Your task to perform on an android device: What's the weather going to be tomorrow? Image 0: 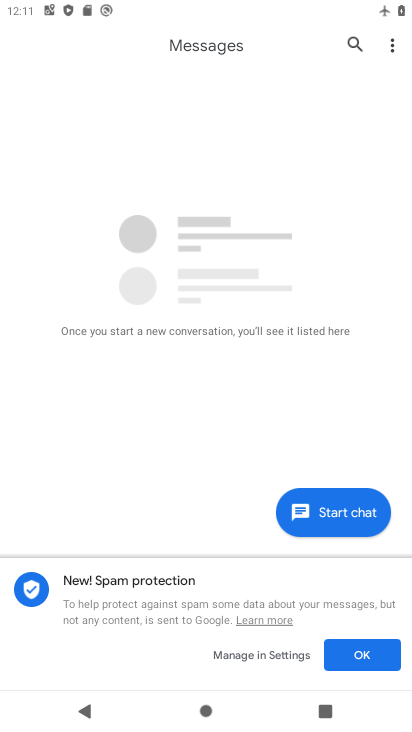
Step 0: press home button
Your task to perform on an android device: What's the weather going to be tomorrow? Image 1: 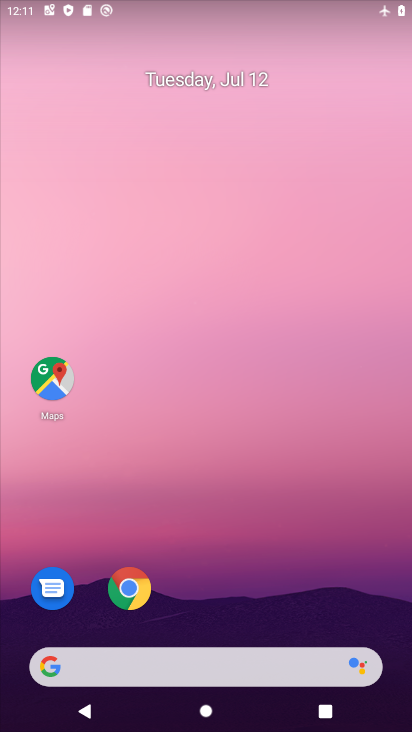
Step 1: drag from (321, 585) to (230, 90)
Your task to perform on an android device: What's the weather going to be tomorrow? Image 2: 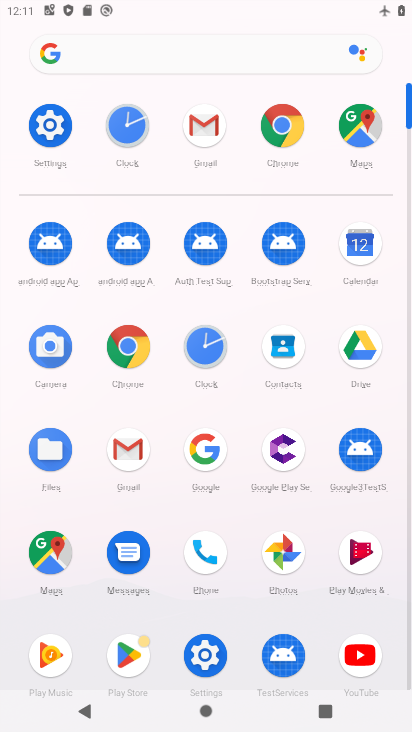
Step 2: click (279, 124)
Your task to perform on an android device: What's the weather going to be tomorrow? Image 3: 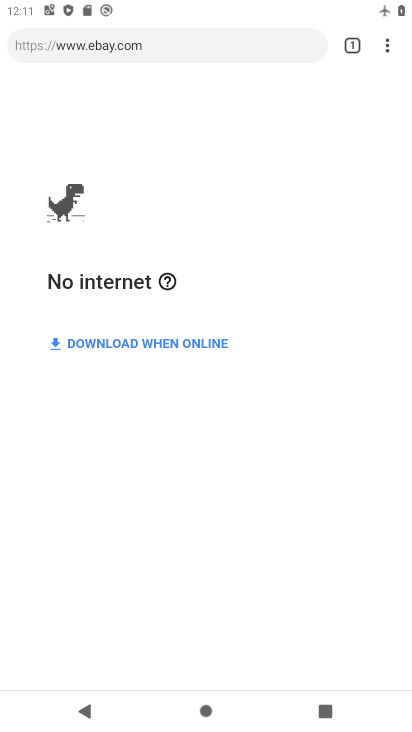
Step 3: click (201, 51)
Your task to perform on an android device: What's the weather going to be tomorrow? Image 4: 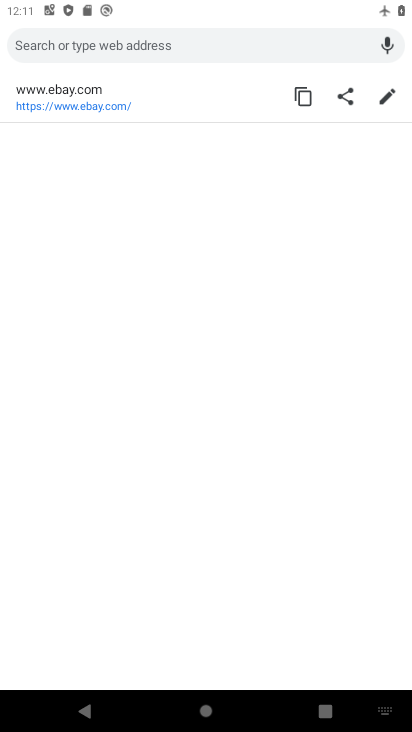
Step 4: type "weather"
Your task to perform on an android device: What's the weather going to be tomorrow? Image 5: 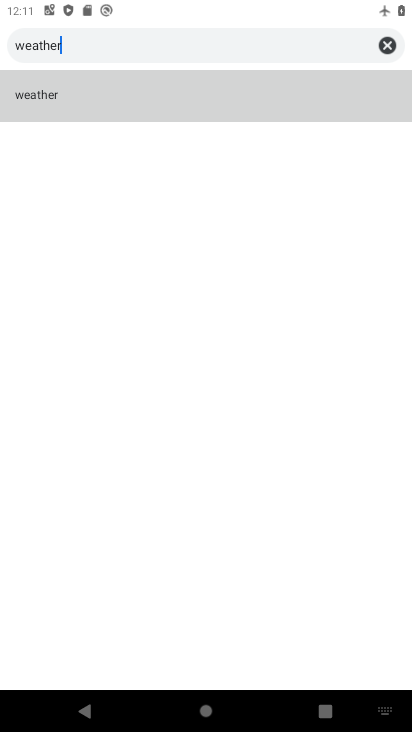
Step 5: click (27, 96)
Your task to perform on an android device: What's the weather going to be tomorrow? Image 6: 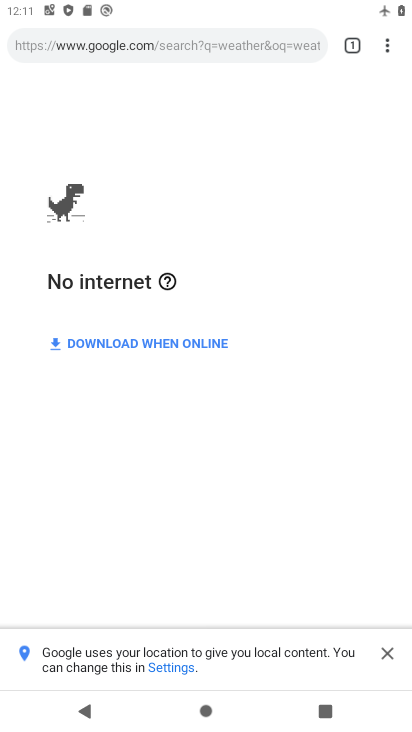
Step 6: task complete